Your task to perform on an android device: toggle improve location accuracy Image 0: 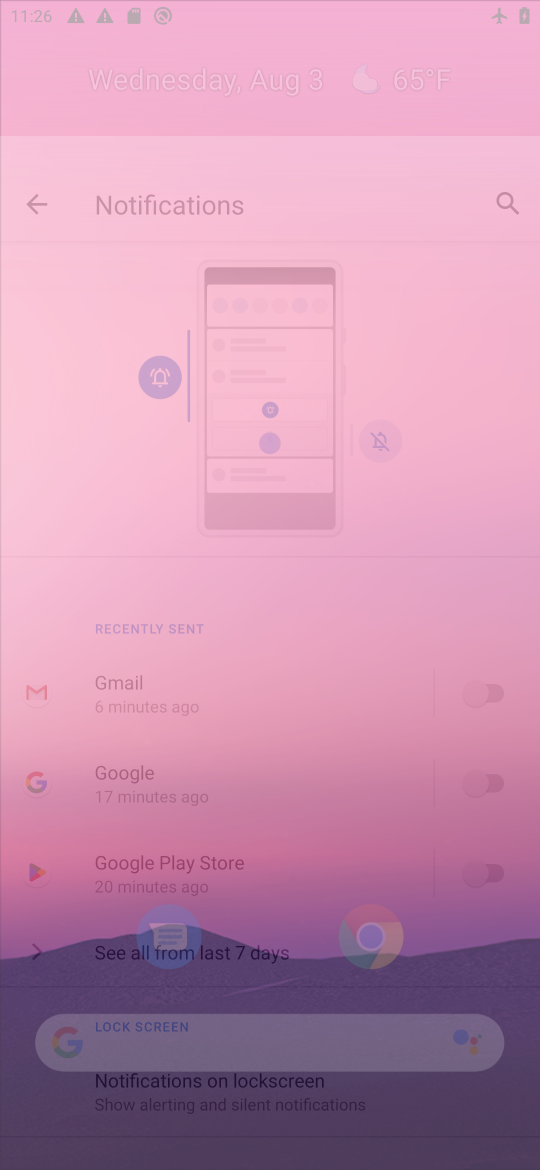
Step 0: press home button
Your task to perform on an android device: toggle improve location accuracy Image 1: 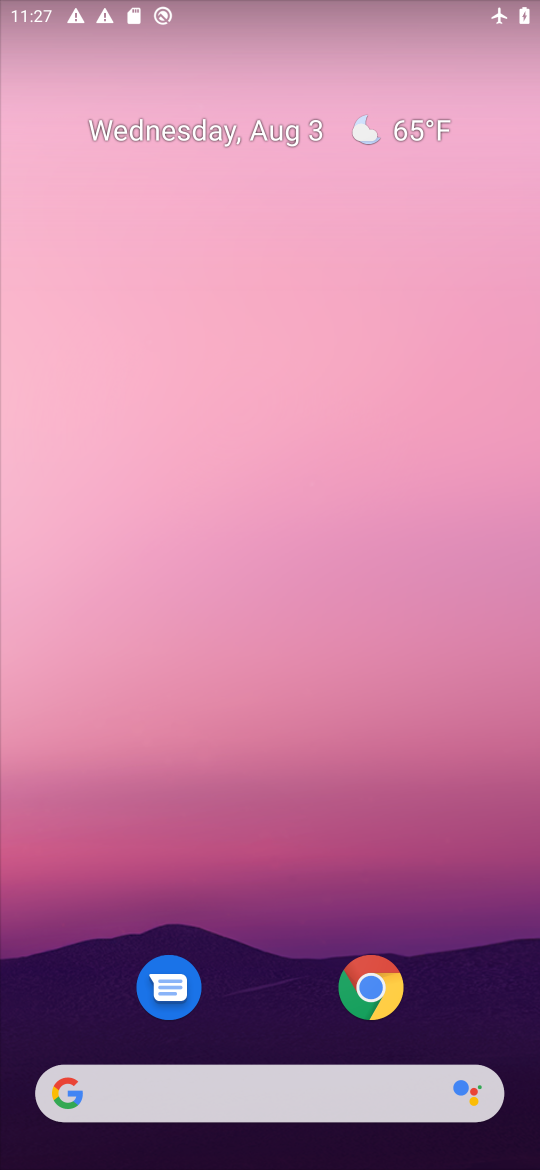
Step 1: drag from (251, 1046) to (183, 498)
Your task to perform on an android device: toggle improve location accuracy Image 2: 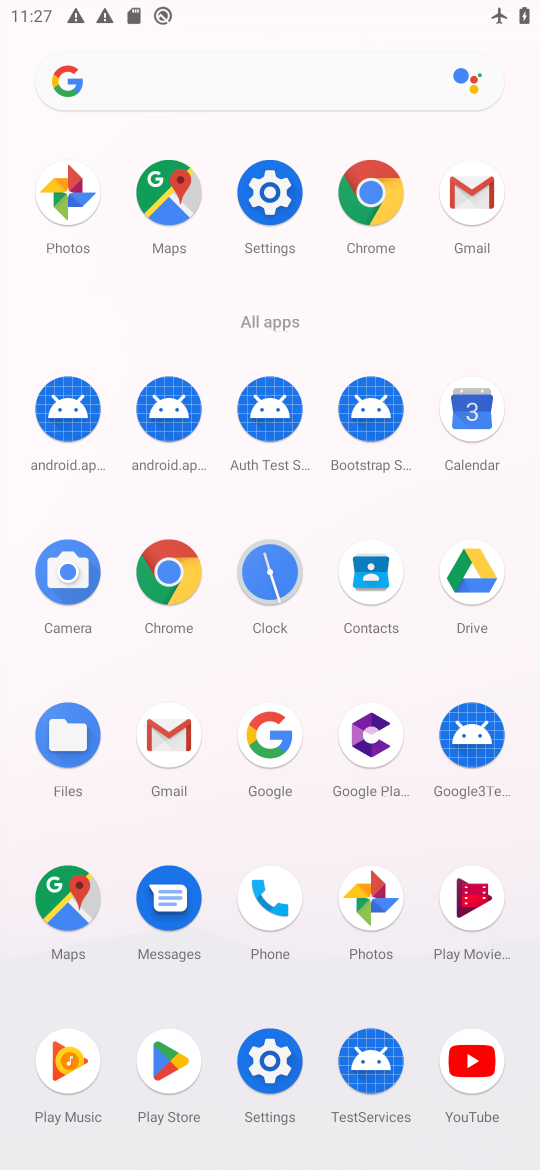
Step 2: click (254, 190)
Your task to perform on an android device: toggle improve location accuracy Image 3: 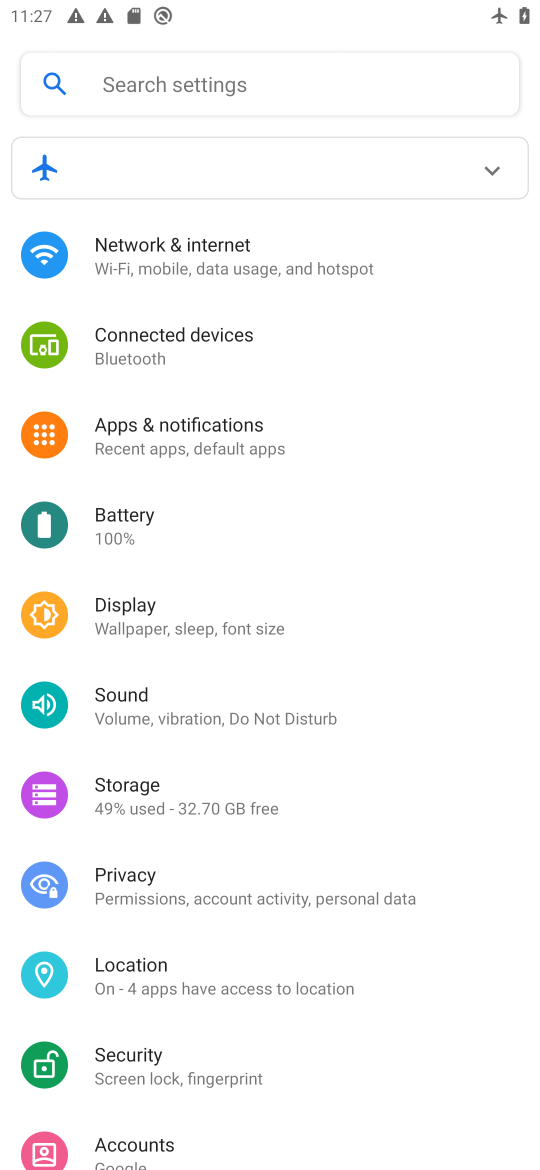
Step 3: click (267, 975)
Your task to perform on an android device: toggle improve location accuracy Image 4: 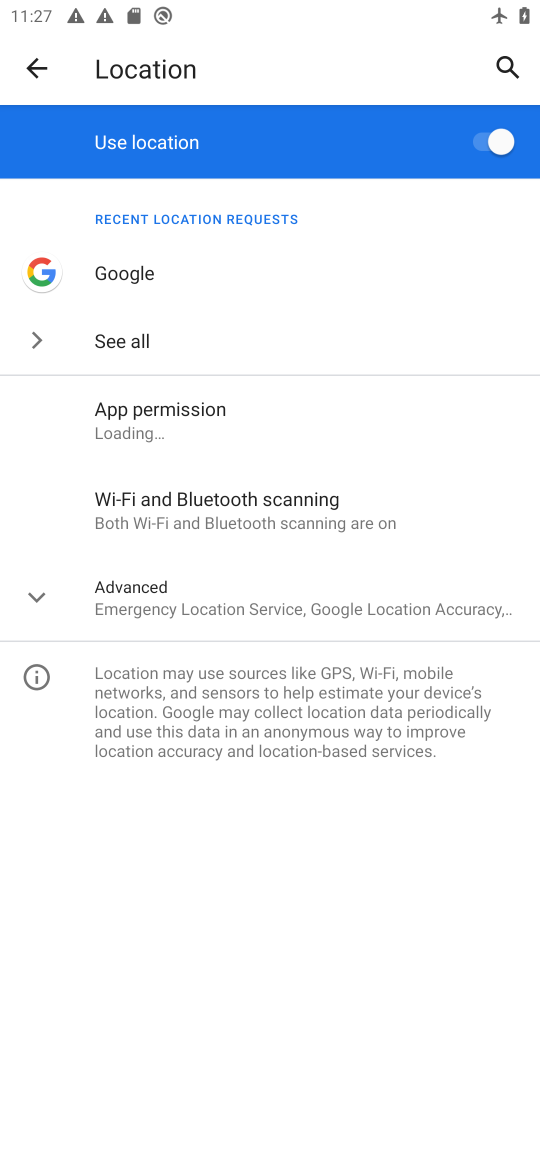
Step 4: click (173, 594)
Your task to perform on an android device: toggle improve location accuracy Image 5: 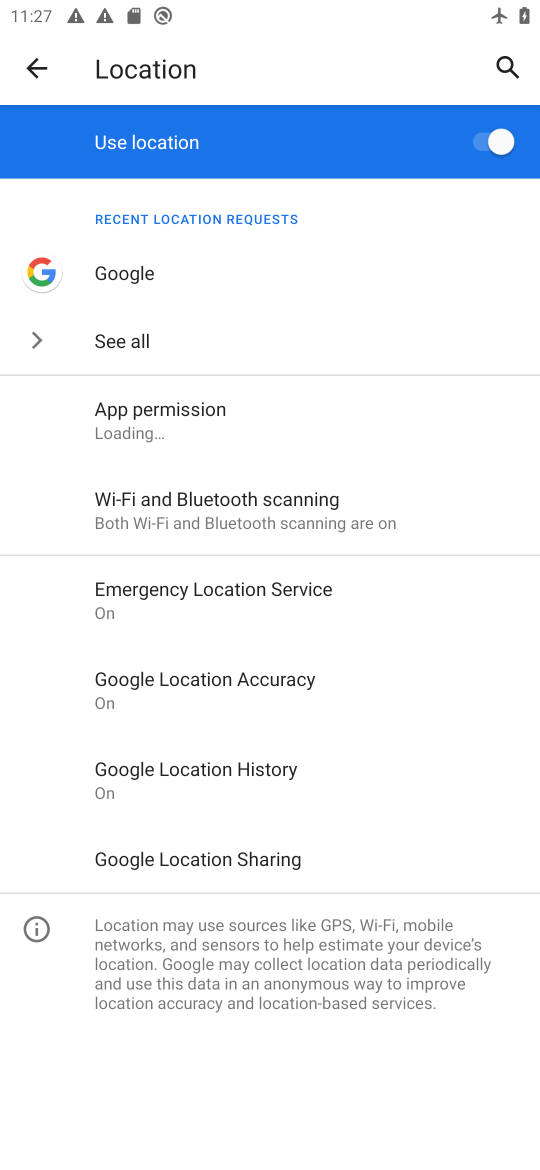
Step 5: click (164, 688)
Your task to perform on an android device: toggle improve location accuracy Image 6: 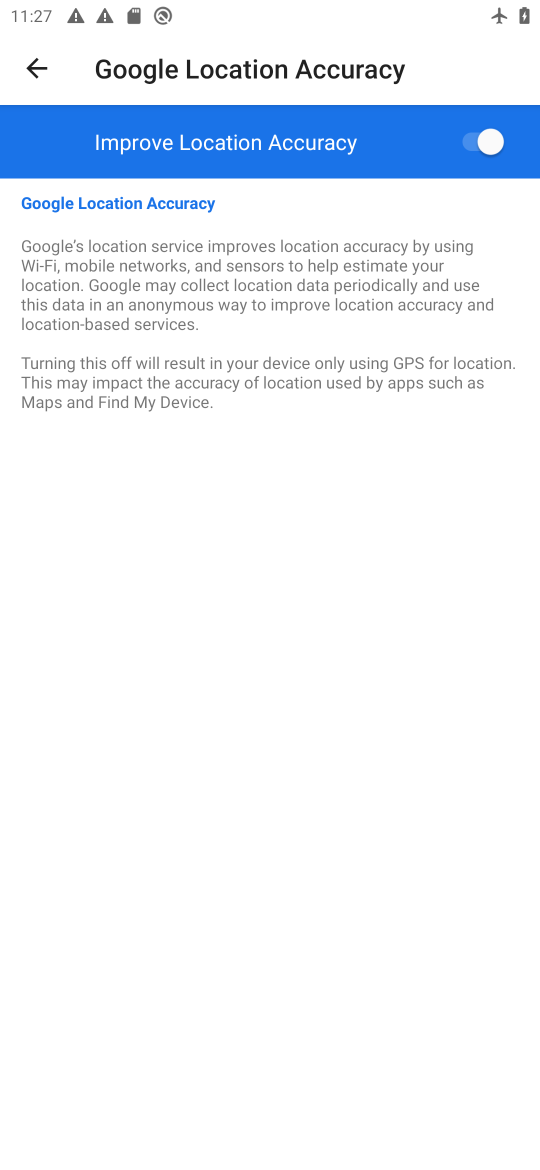
Step 6: click (474, 143)
Your task to perform on an android device: toggle improve location accuracy Image 7: 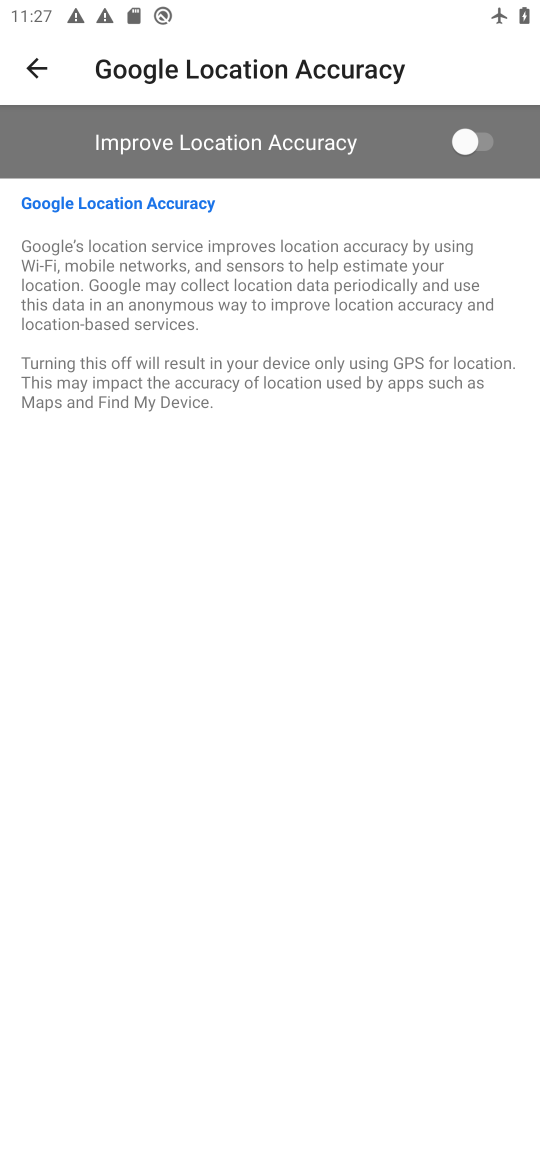
Step 7: task complete